Your task to perform on an android device: Go to eBay Image 0: 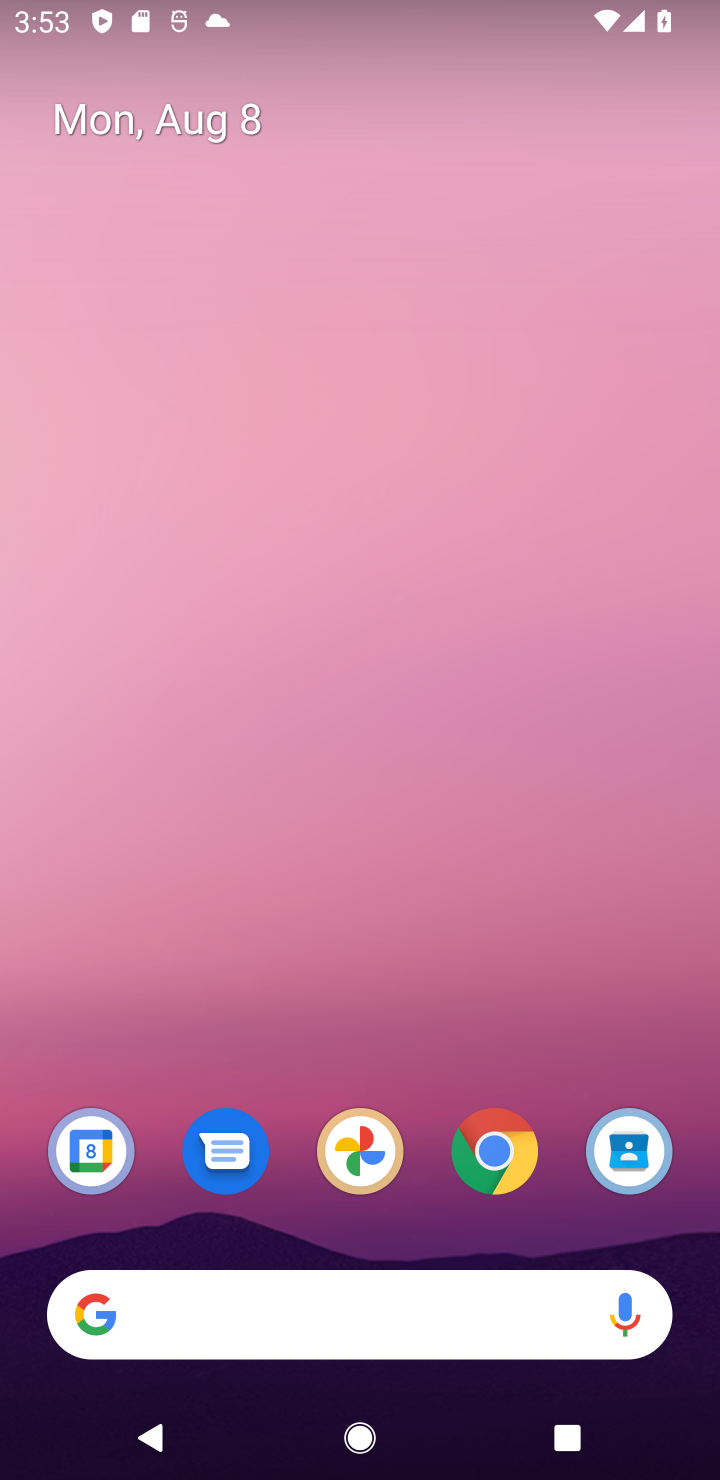
Step 0: click (505, 1146)
Your task to perform on an android device: Go to eBay Image 1: 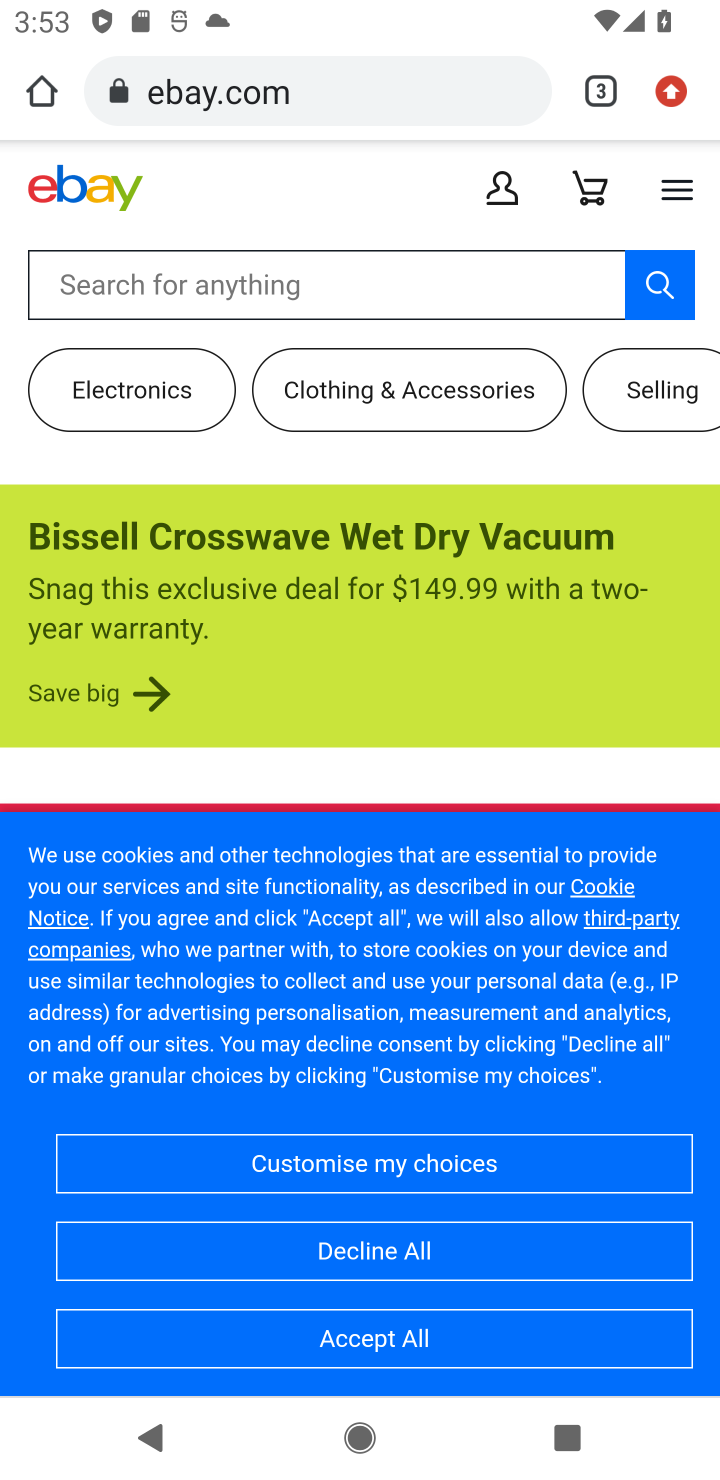
Step 1: task complete